Your task to perform on an android device: Find coffee shops on Maps Image 0: 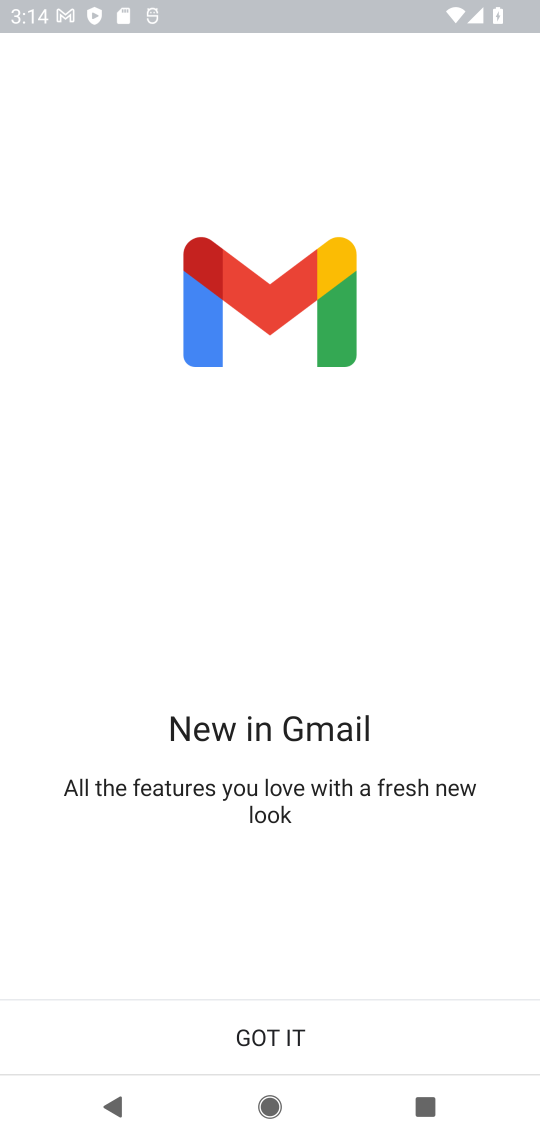
Step 0: press home button
Your task to perform on an android device: Find coffee shops on Maps Image 1: 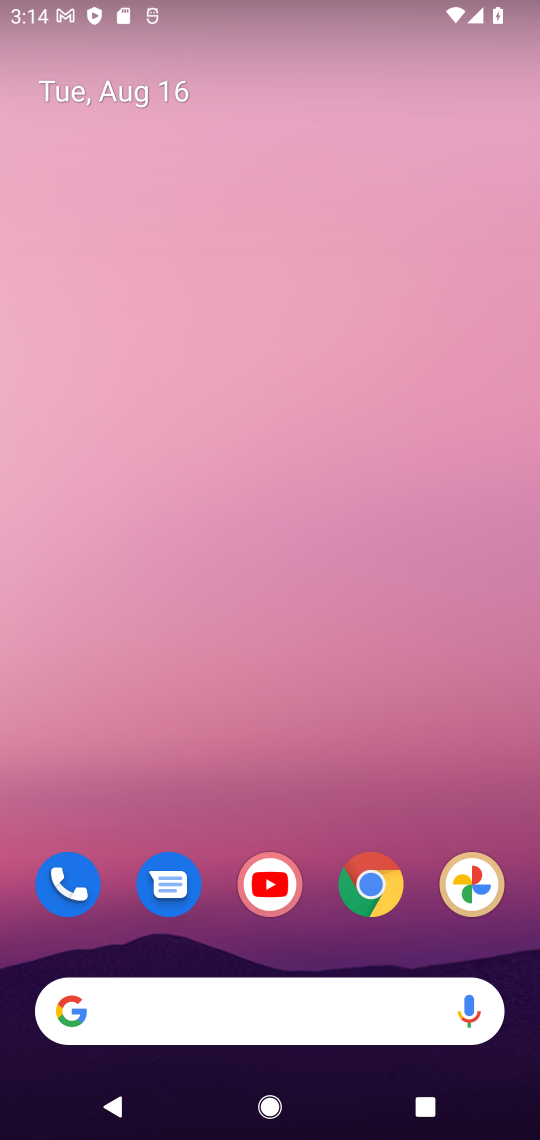
Step 1: drag from (267, 815) to (267, 200)
Your task to perform on an android device: Find coffee shops on Maps Image 2: 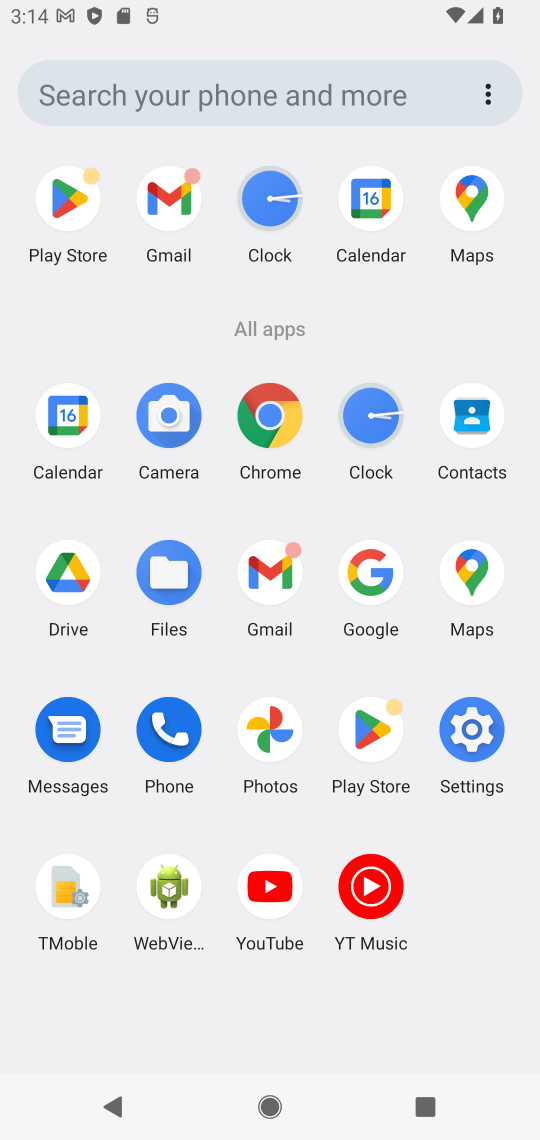
Step 2: click (441, 203)
Your task to perform on an android device: Find coffee shops on Maps Image 3: 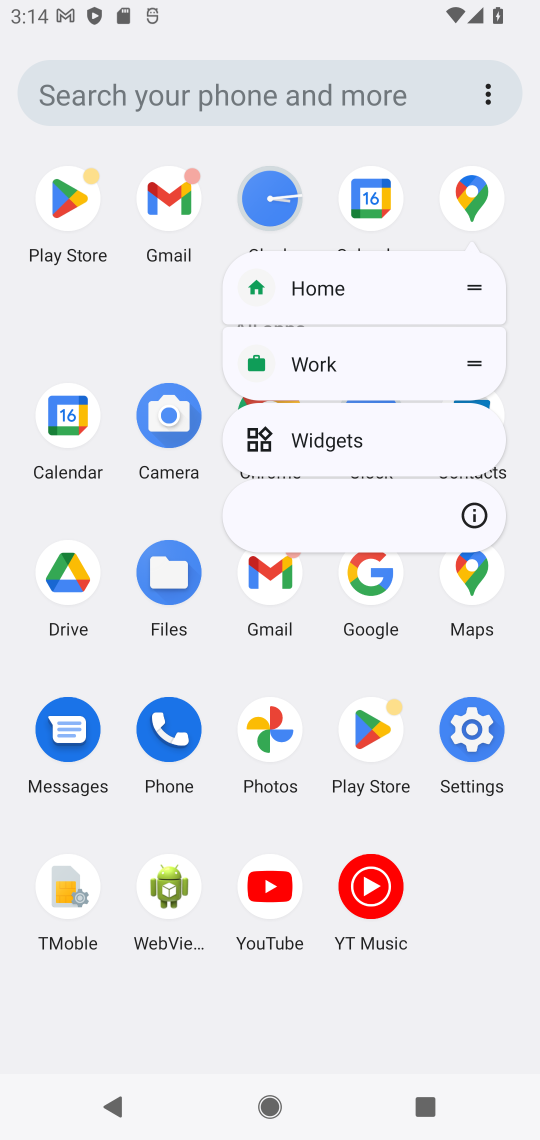
Step 3: click (466, 196)
Your task to perform on an android device: Find coffee shops on Maps Image 4: 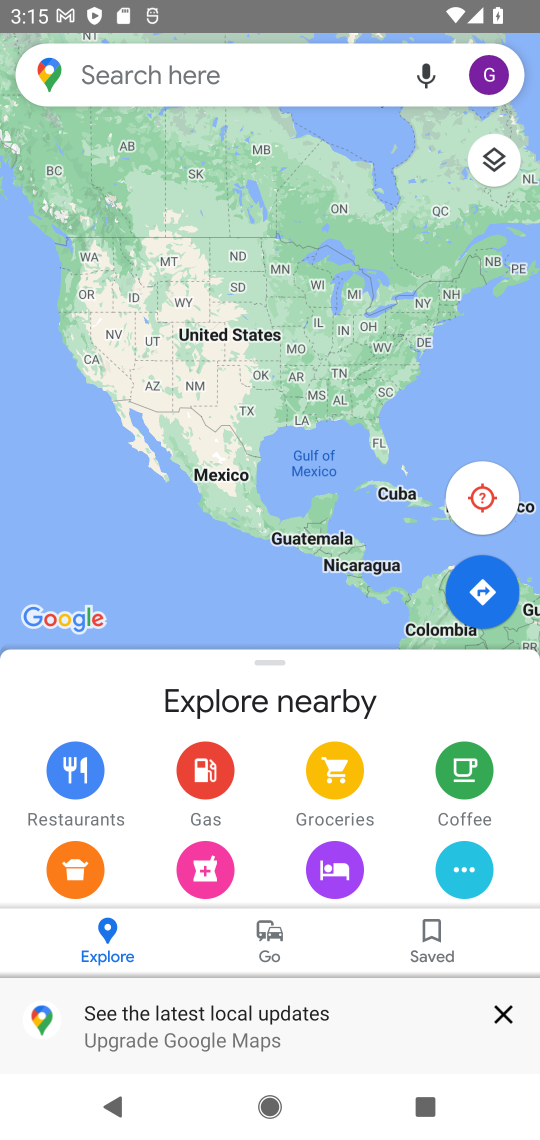
Step 4: click (232, 59)
Your task to perform on an android device: Find coffee shops on Maps Image 5: 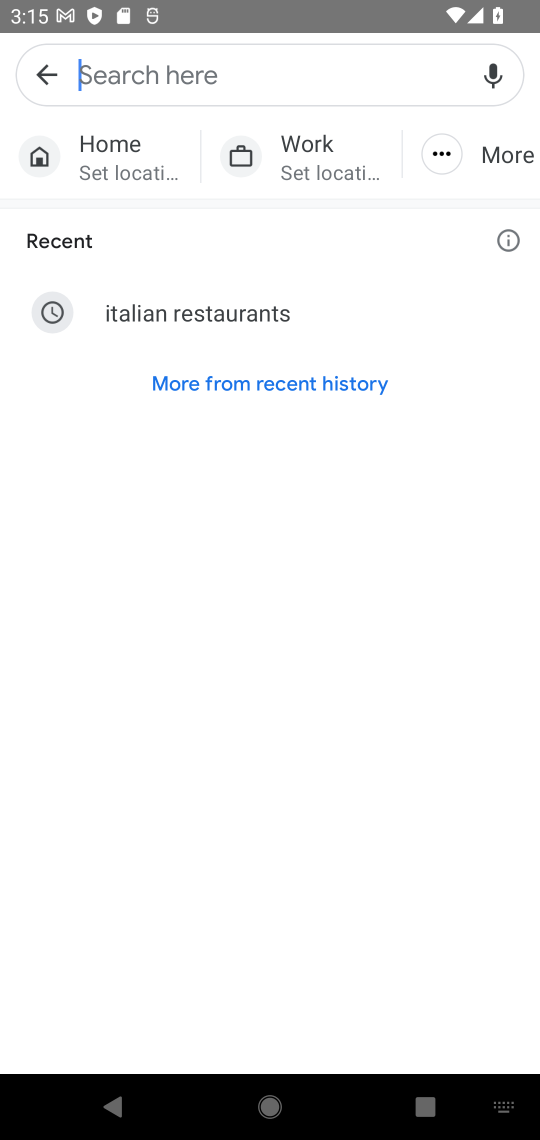
Step 5: type "coffee shops"
Your task to perform on an android device: Find coffee shops on Maps Image 6: 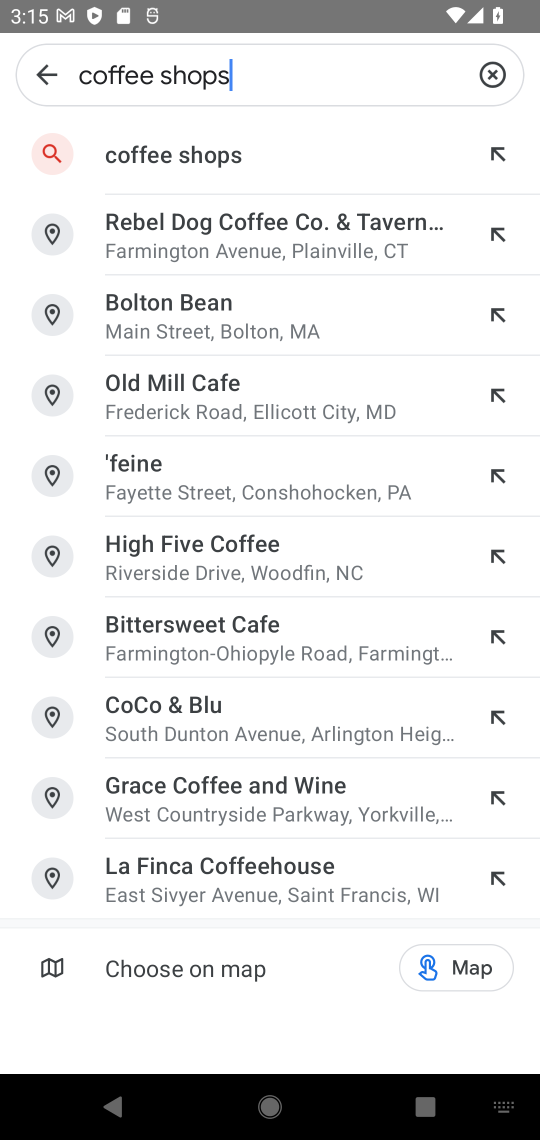
Step 6: click (212, 143)
Your task to perform on an android device: Find coffee shops on Maps Image 7: 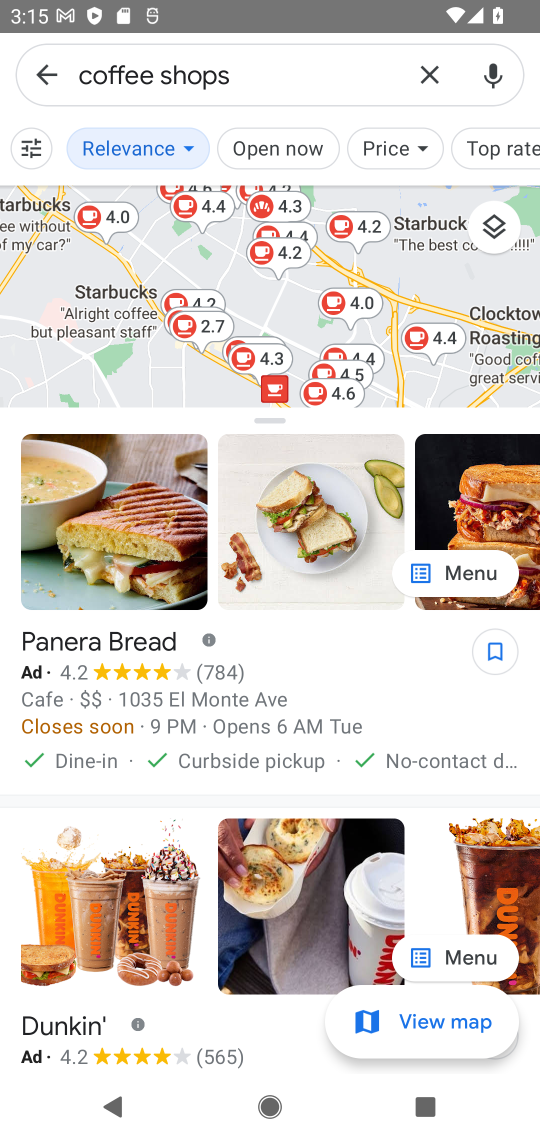
Step 7: task complete